Your task to perform on an android device: set an alarm Image 0: 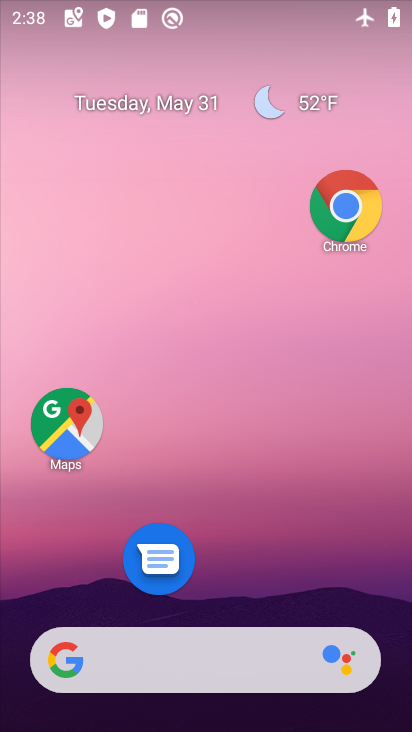
Step 0: drag from (292, 581) to (229, 105)
Your task to perform on an android device: set an alarm Image 1: 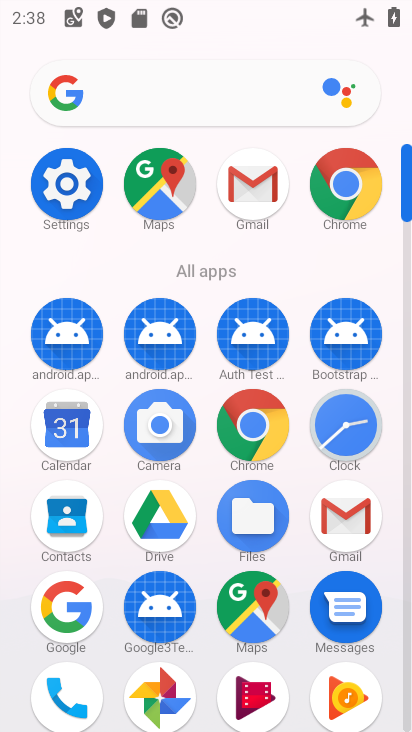
Step 1: click (343, 444)
Your task to perform on an android device: set an alarm Image 2: 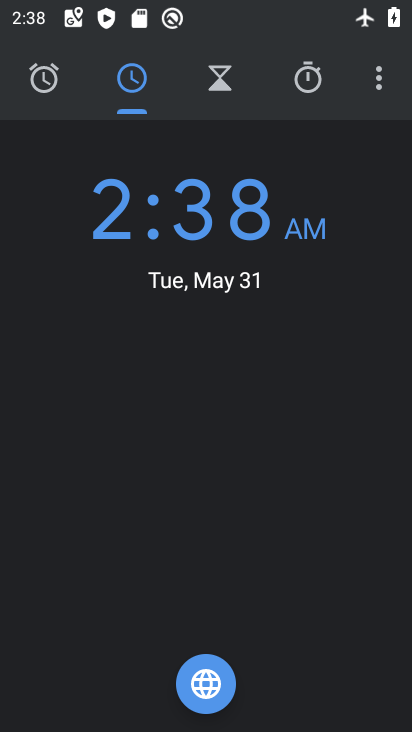
Step 2: click (60, 82)
Your task to perform on an android device: set an alarm Image 3: 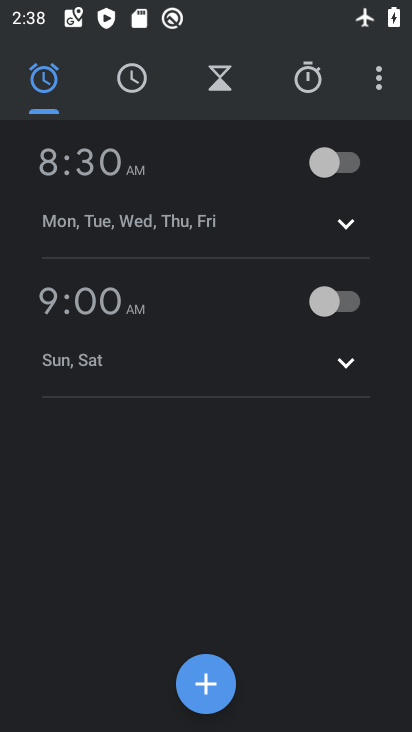
Step 3: click (205, 683)
Your task to perform on an android device: set an alarm Image 4: 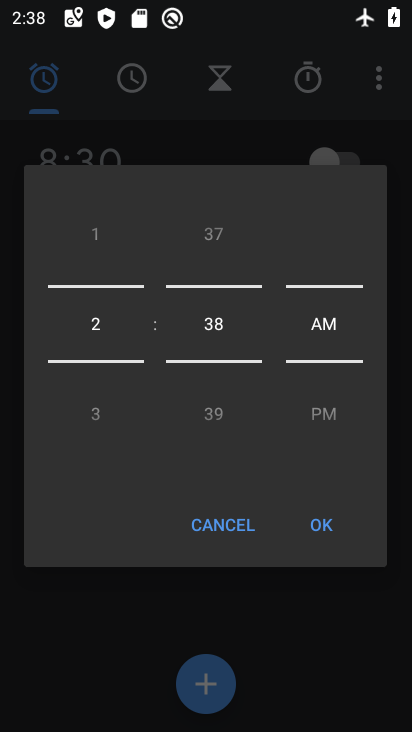
Step 4: click (314, 513)
Your task to perform on an android device: set an alarm Image 5: 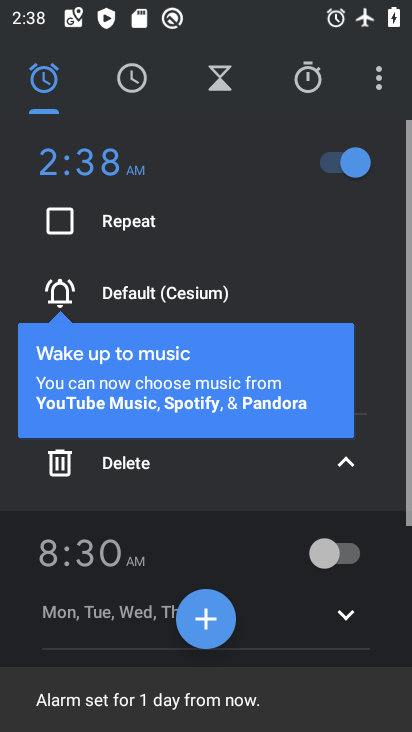
Step 5: task complete